Your task to perform on an android device: toggle pop-ups in chrome Image 0: 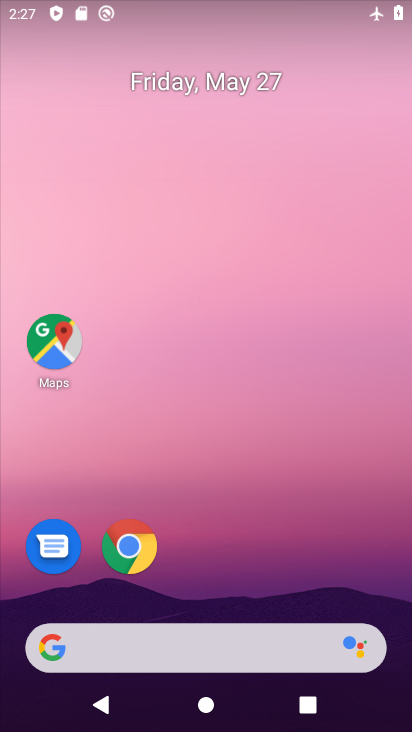
Step 0: click (129, 543)
Your task to perform on an android device: toggle pop-ups in chrome Image 1: 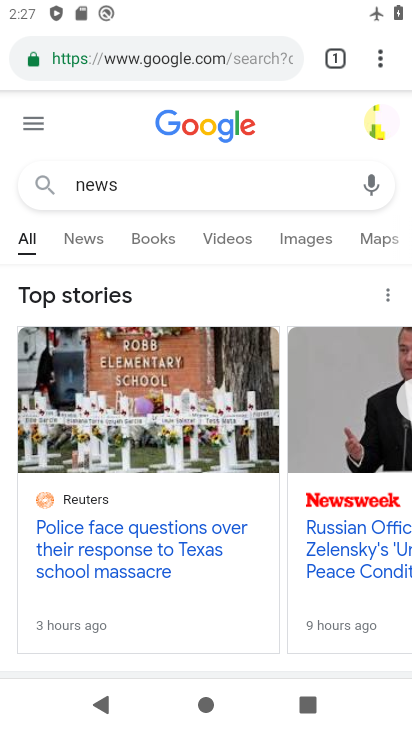
Step 1: click (377, 56)
Your task to perform on an android device: toggle pop-ups in chrome Image 2: 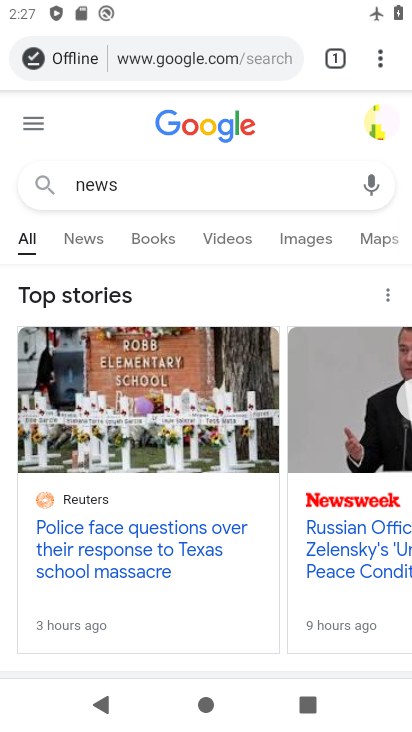
Step 2: click (379, 59)
Your task to perform on an android device: toggle pop-ups in chrome Image 3: 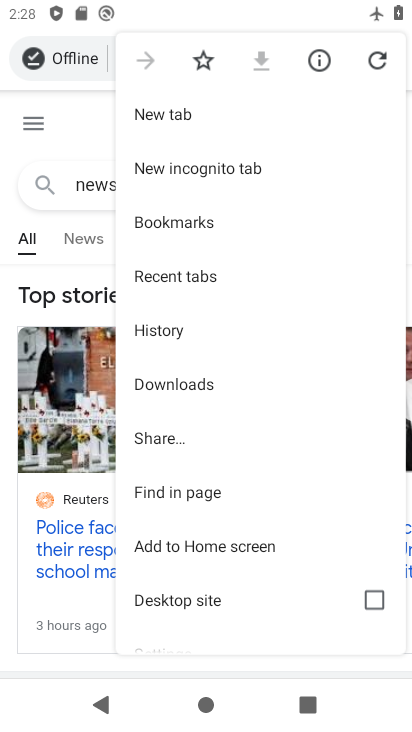
Step 3: drag from (218, 508) to (285, 155)
Your task to perform on an android device: toggle pop-ups in chrome Image 4: 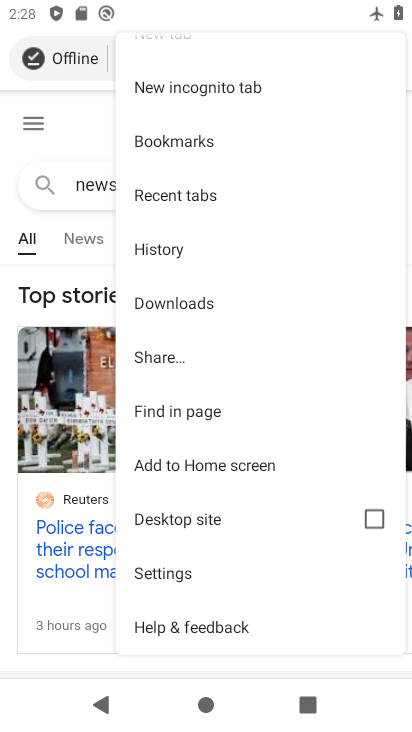
Step 4: click (195, 571)
Your task to perform on an android device: toggle pop-ups in chrome Image 5: 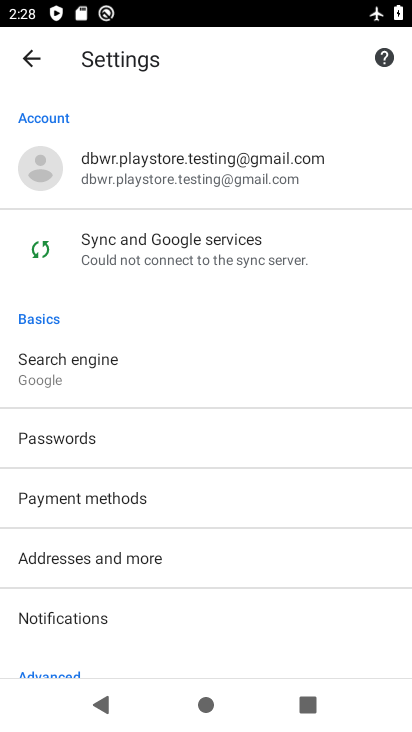
Step 5: drag from (119, 623) to (138, 136)
Your task to perform on an android device: toggle pop-ups in chrome Image 6: 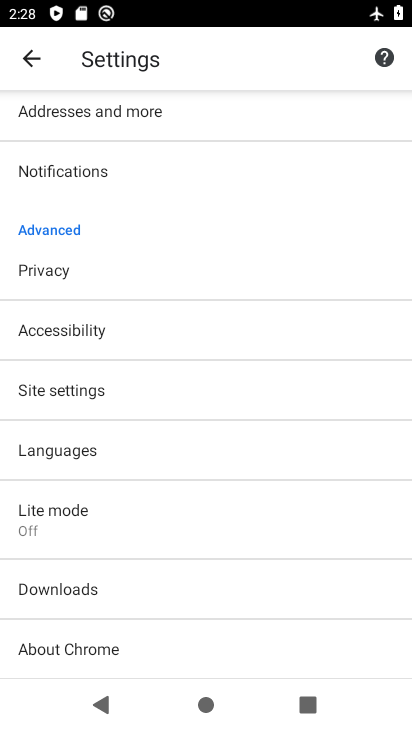
Step 6: click (50, 393)
Your task to perform on an android device: toggle pop-ups in chrome Image 7: 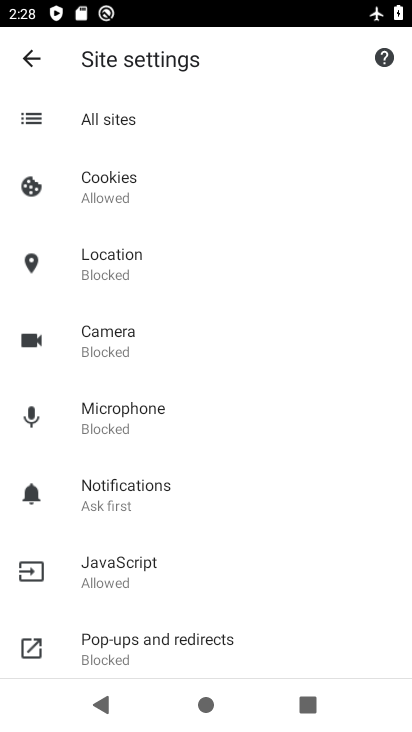
Step 7: click (128, 640)
Your task to perform on an android device: toggle pop-ups in chrome Image 8: 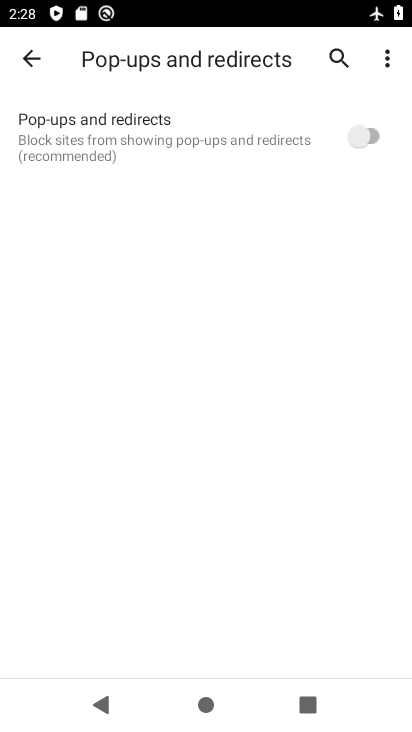
Step 8: click (353, 130)
Your task to perform on an android device: toggle pop-ups in chrome Image 9: 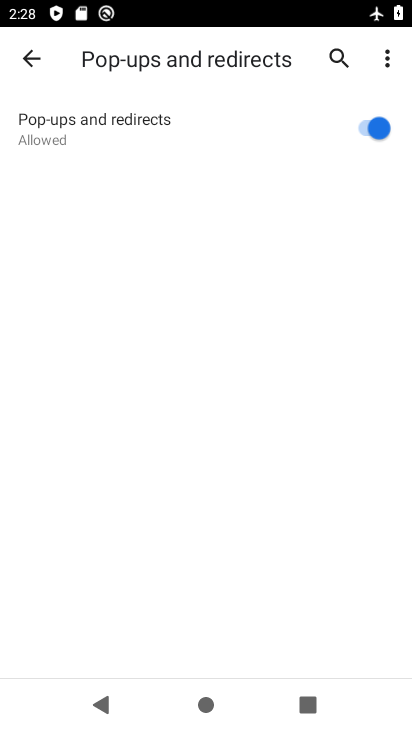
Step 9: task complete